Your task to perform on an android device: snooze an email in the gmail app Image 0: 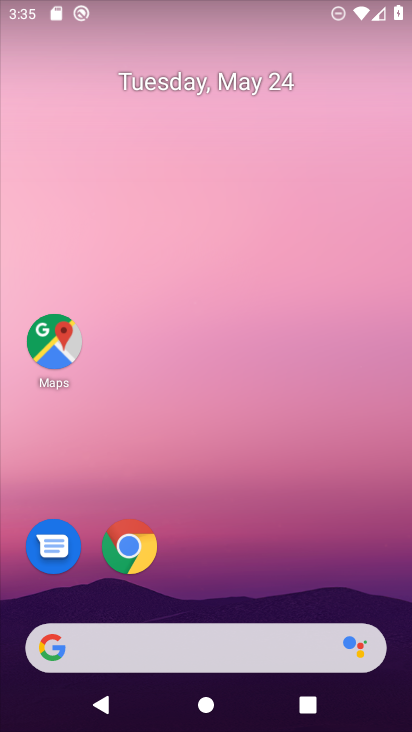
Step 0: drag from (276, 564) to (153, 10)
Your task to perform on an android device: snooze an email in the gmail app Image 1: 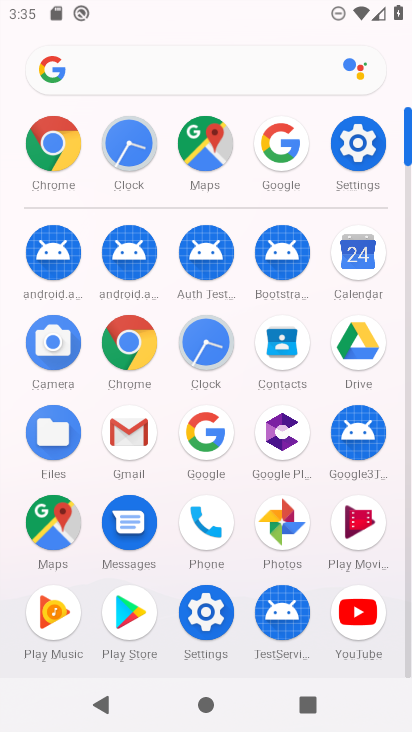
Step 1: click (130, 438)
Your task to perform on an android device: snooze an email in the gmail app Image 2: 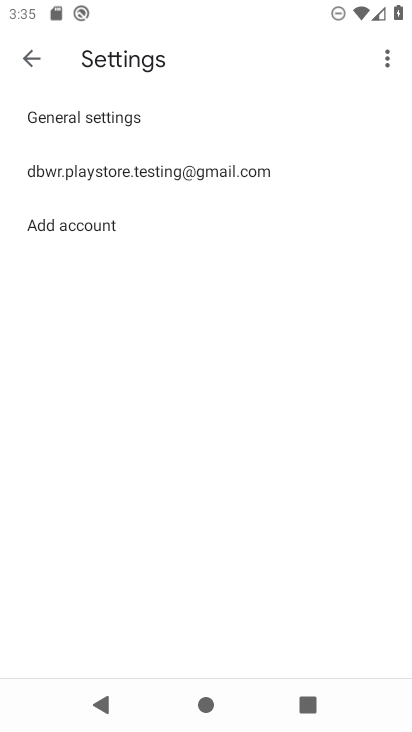
Step 2: click (184, 171)
Your task to perform on an android device: snooze an email in the gmail app Image 3: 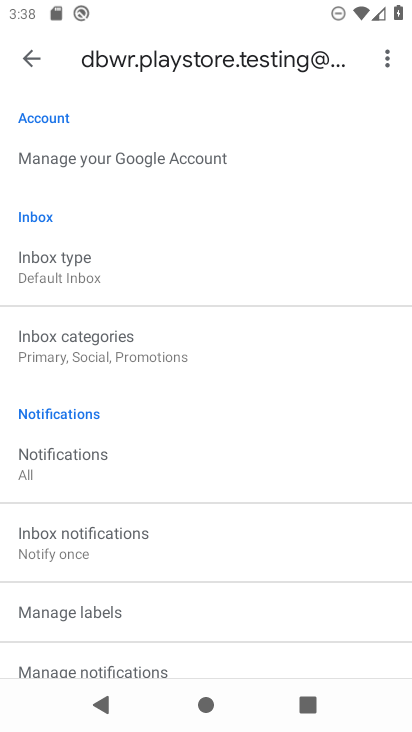
Step 3: task complete